Your task to perform on an android device: open a bookmark in the chrome app Image 0: 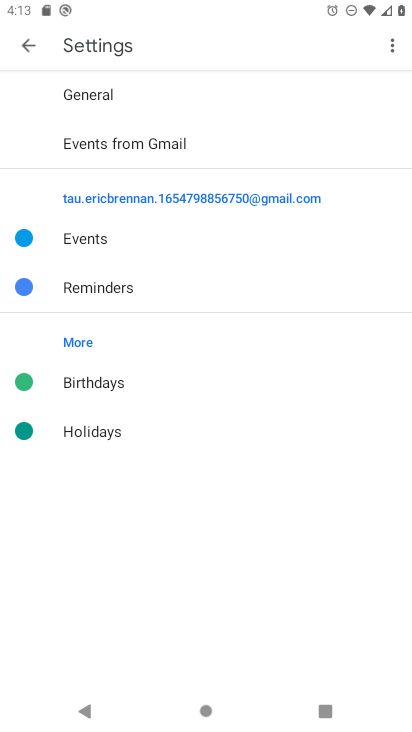
Step 0: press home button
Your task to perform on an android device: open a bookmark in the chrome app Image 1: 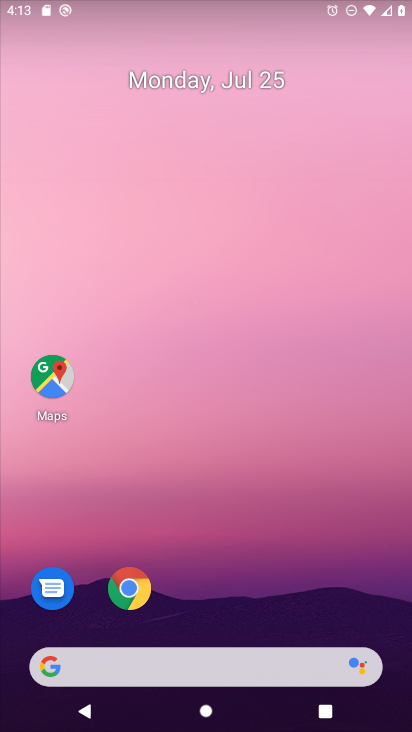
Step 1: drag from (230, 723) to (230, 85)
Your task to perform on an android device: open a bookmark in the chrome app Image 2: 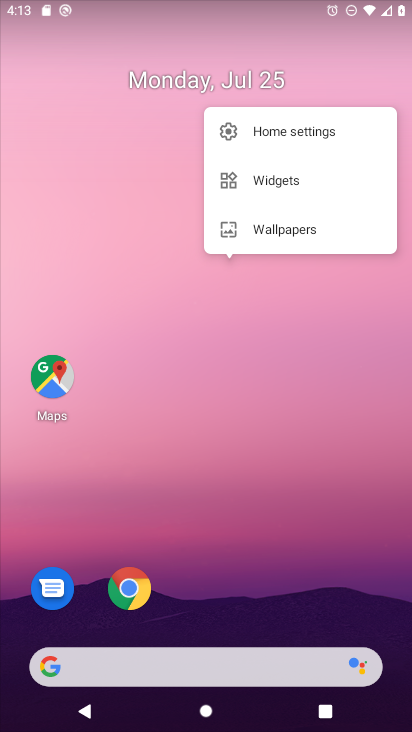
Step 2: click (247, 411)
Your task to perform on an android device: open a bookmark in the chrome app Image 3: 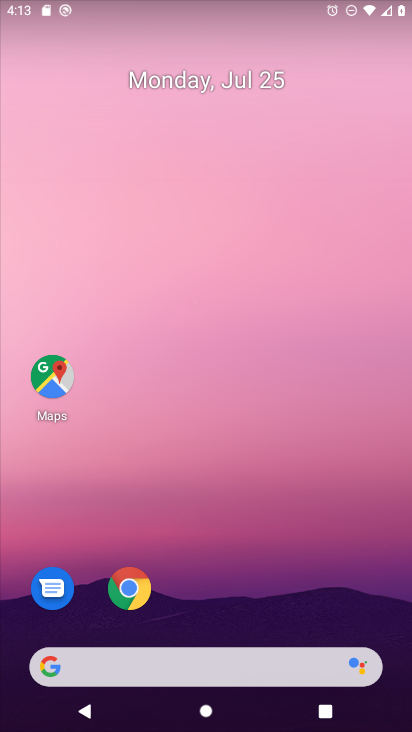
Step 3: click (121, 588)
Your task to perform on an android device: open a bookmark in the chrome app Image 4: 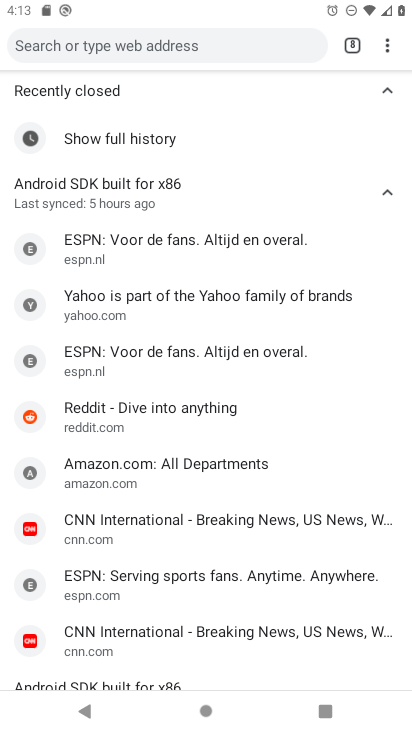
Step 4: click (388, 46)
Your task to perform on an android device: open a bookmark in the chrome app Image 5: 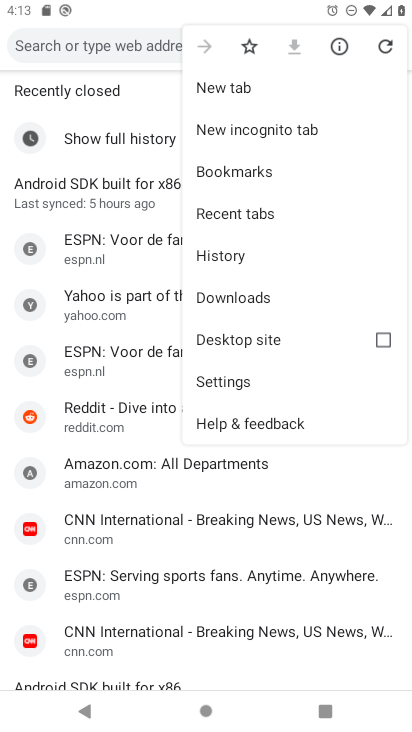
Step 5: click (228, 170)
Your task to perform on an android device: open a bookmark in the chrome app Image 6: 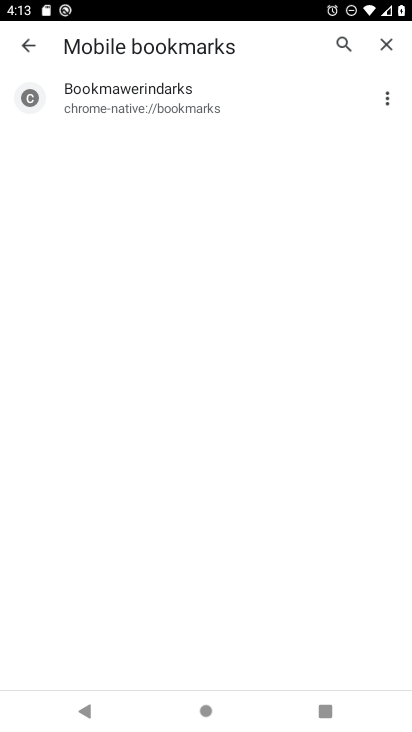
Step 6: click (149, 97)
Your task to perform on an android device: open a bookmark in the chrome app Image 7: 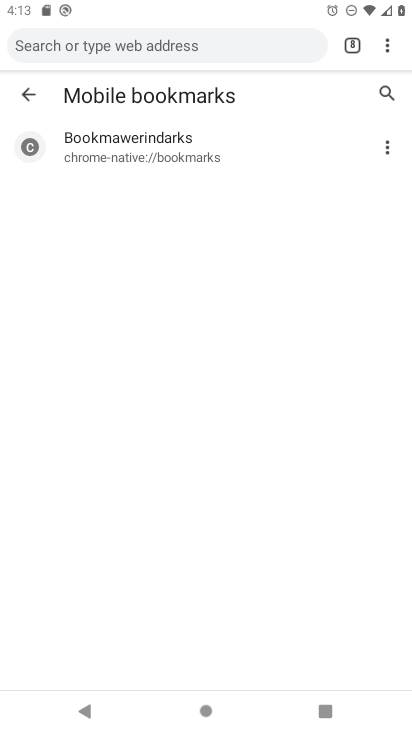
Step 7: click (140, 140)
Your task to perform on an android device: open a bookmark in the chrome app Image 8: 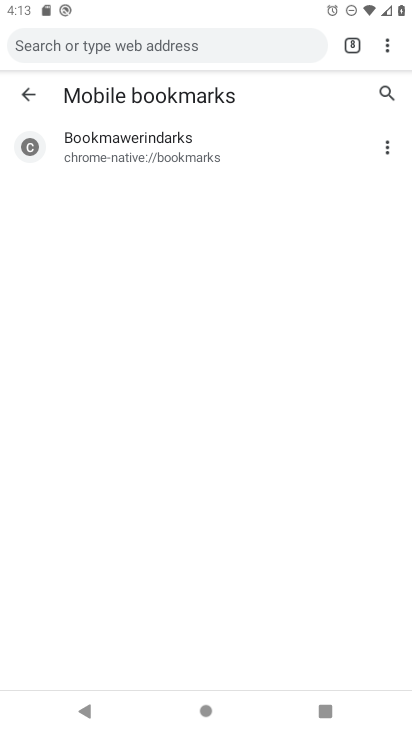
Step 8: click (90, 150)
Your task to perform on an android device: open a bookmark in the chrome app Image 9: 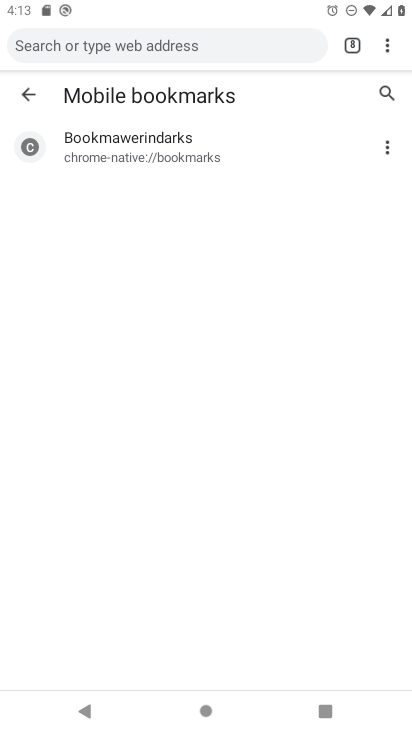
Step 9: task complete